Your task to perform on an android device: turn on bluetooth scan Image 0: 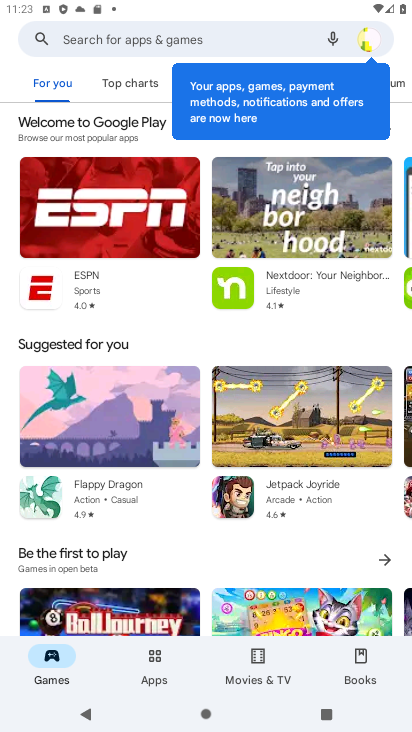
Step 0: task complete